Your task to perform on an android device: find photos in the google photos app Image 0: 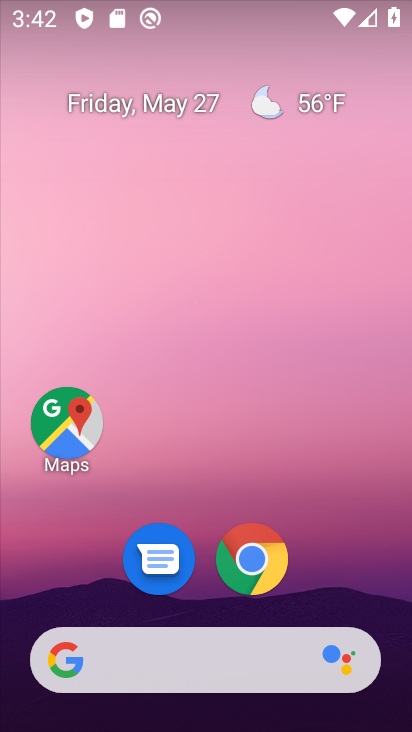
Step 0: drag from (51, 633) to (230, 205)
Your task to perform on an android device: find photos in the google photos app Image 1: 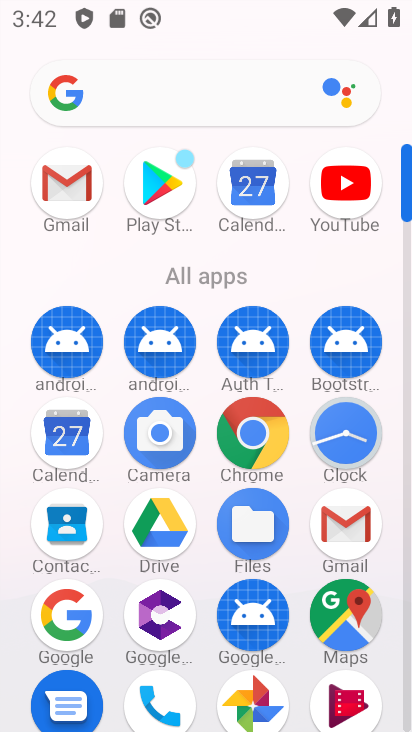
Step 1: drag from (145, 648) to (208, 423)
Your task to perform on an android device: find photos in the google photos app Image 2: 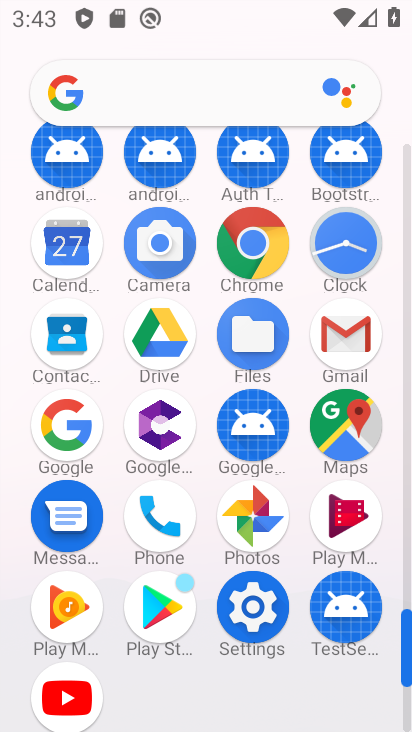
Step 2: click (248, 527)
Your task to perform on an android device: find photos in the google photos app Image 3: 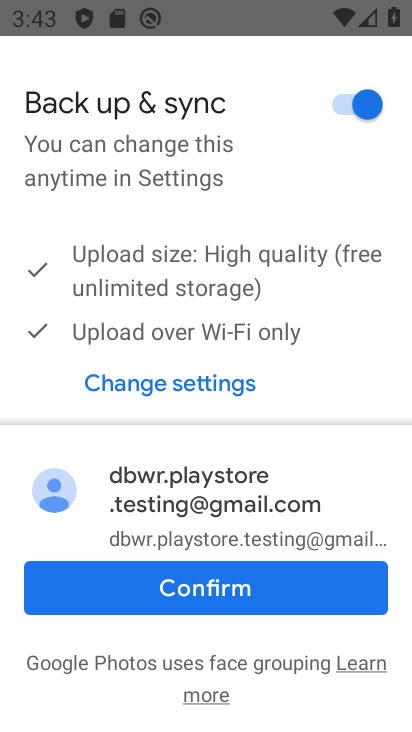
Step 3: click (216, 598)
Your task to perform on an android device: find photos in the google photos app Image 4: 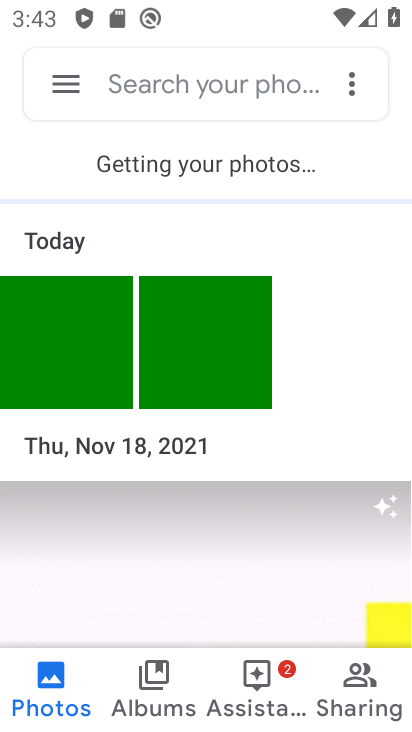
Step 4: task complete